Your task to perform on an android device: open app "Grab" (install if not already installed) Image 0: 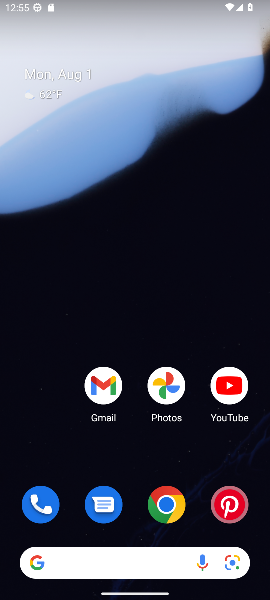
Step 0: drag from (122, 583) to (261, 51)
Your task to perform on an android device: open app "Grab" (install if not already installed) Image 1: 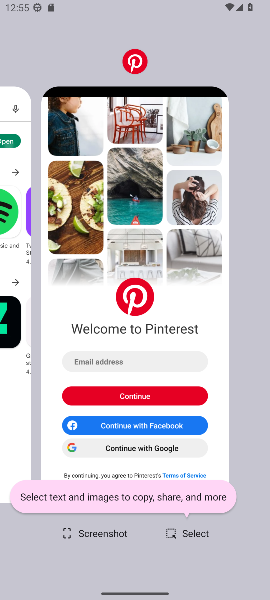
Step 1: press home button
Your task to perform on an android device: open app "Grab" (install if not already installed) Image 2: 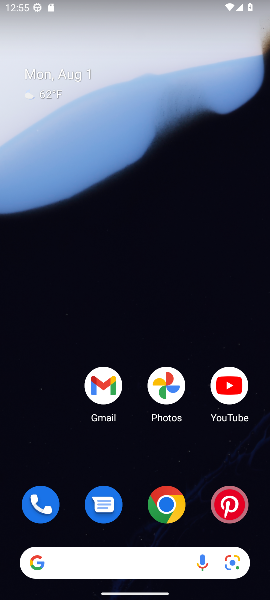
Step 2: drag from (127, 560) to (106, 46)
Your task to perform on an android device: open app "Grab" (install if not already installed) Image 3: 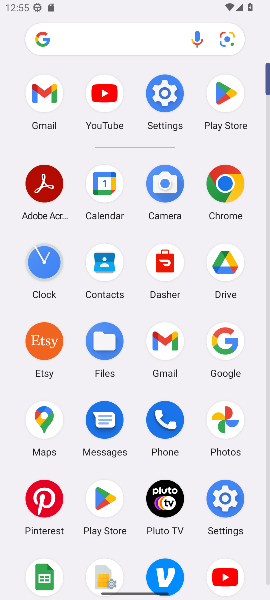
Step 3: click (219, 92)
Your task to perform on an android device: open app "Grab" (install if not already installed) Image 4: 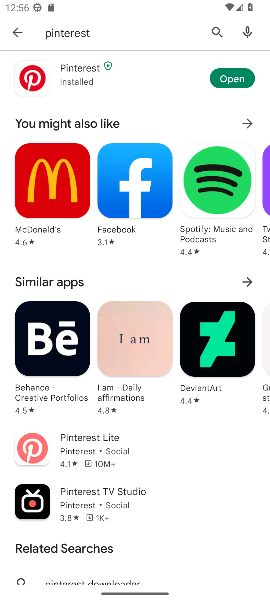
Step 4: click (219, 29)
Your task to perform on an android device: open app "Grab" (install if not already installed) Image 5: 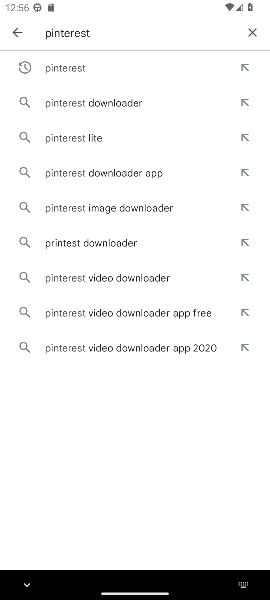
Step 5: click (248, 29)
Your task to perform on an android device: open app "Grab" (install if not already installed) Image 6: 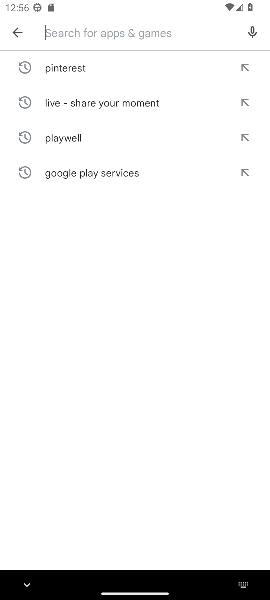
Step 6: type "grab"
Your task to perform on an android device: open app "Grab" (install if not already installed) Image 7: 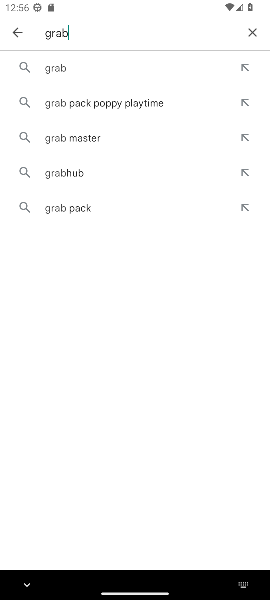
Step 7: click (51, 67)
Your task to perform on an android device: open app "Grab" (install if not already installed) Image 8: 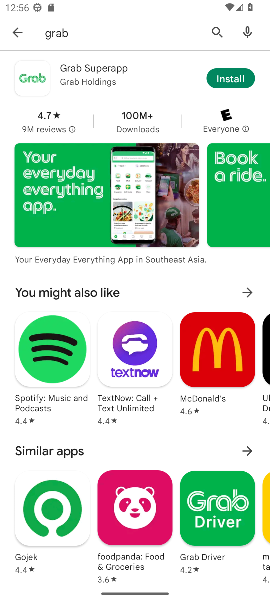
Step 8: click (232, 66)
Your task to perform on an android device: open app "Grab" (install if not already installed) Image 9: 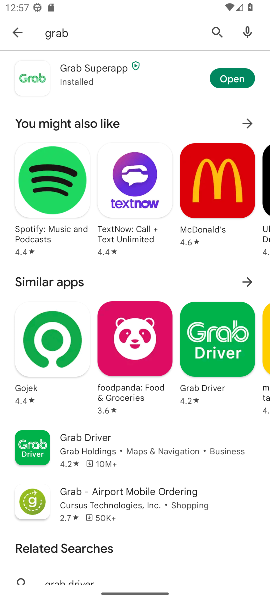
Step 9: click (244, 86)
Your task to perform on an android device: open app "Grab" (install if not already installed) Image 10: 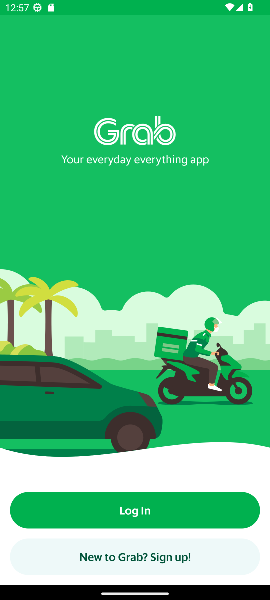
Step 10: task complete